Your task to perform on an android device: Go to location settings Image 0: 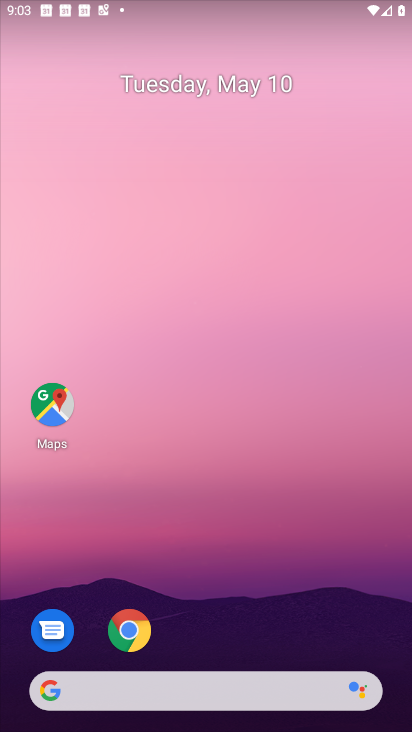
Step 0: drag from (172, 731) to (276, 83)
Your task to perform on an android device: Go to location settings Image 1: 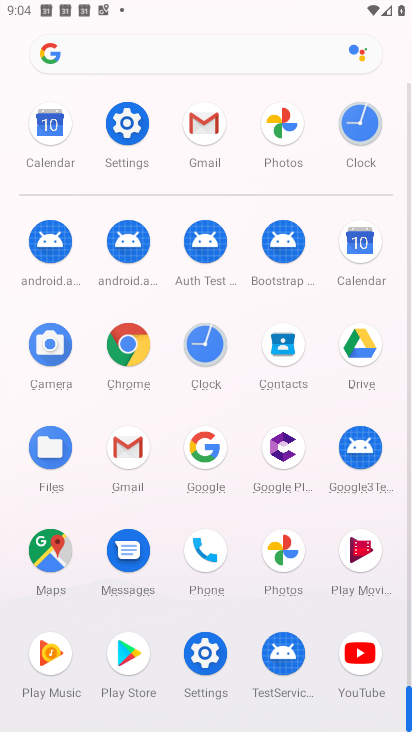
Step 1: click (132, 123)
Your task to perform on an android device: Go to location settings Image 2: 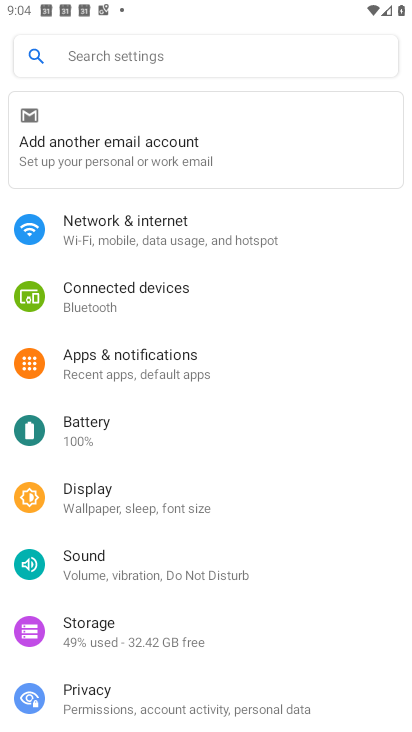
Step 2: drag from (181, 656) to (212, 191)
Your task to perform on an android device: Go to location settings Image 3: 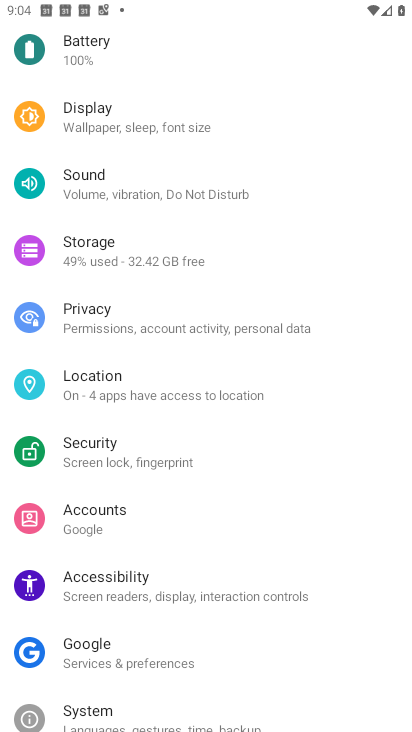
Step 3: click (151, 380)
Your task to perform on an android device: Go to location settings Image 4: 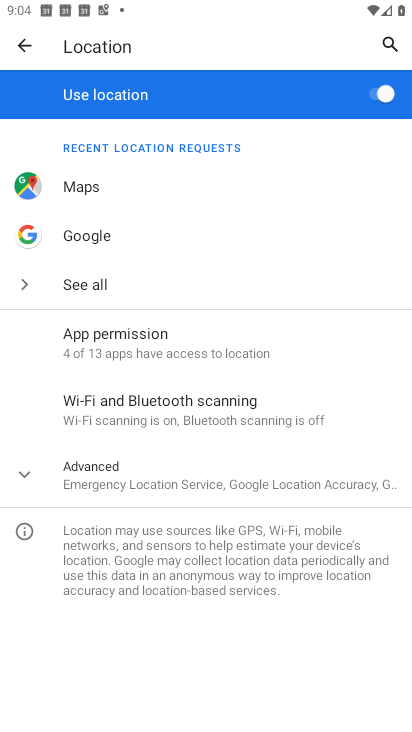
Step 4: task complete